Your task to perform on an android device: delete browsing data in the chrome app Image 0: 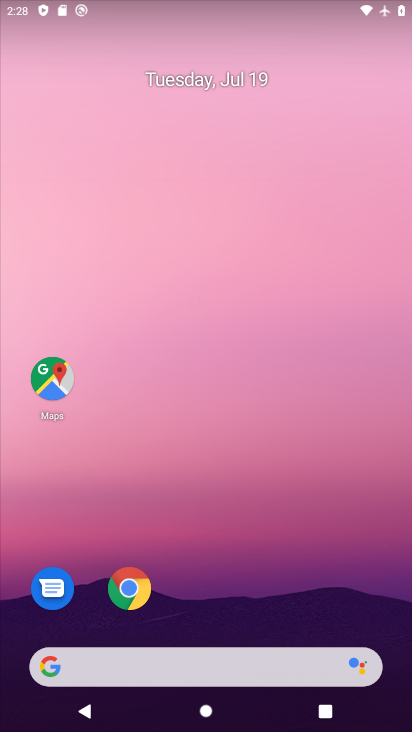
Step 0: press home button
Your task to perform on an android device: delete browsing data in the chrome app Image 1: 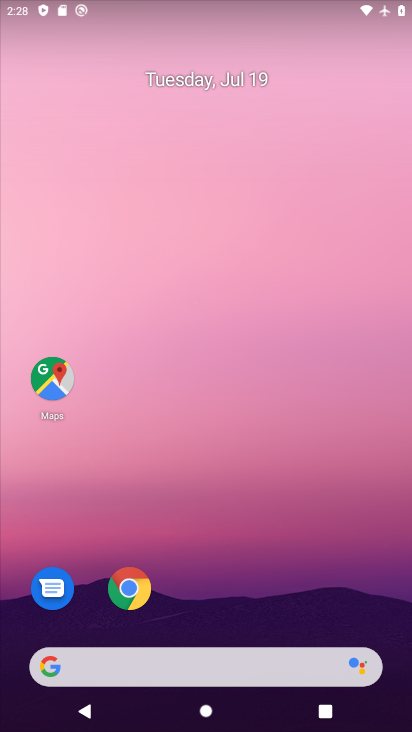
Step 1: drag from (216, 628) to (281, 108)
Your task to perform on an android device: delete browsing data in the chrome app Image 2: 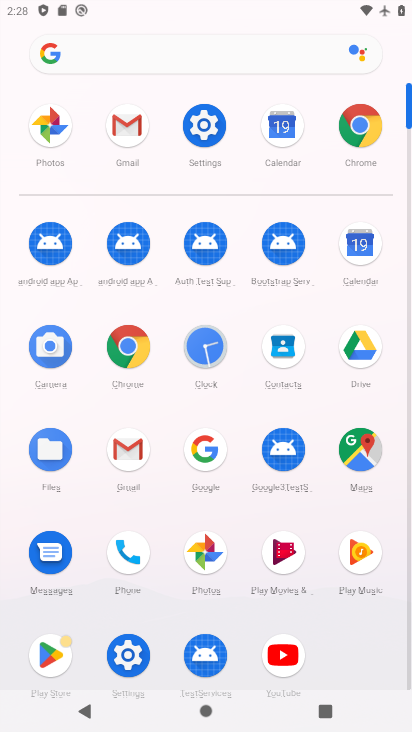
Step 2: click (355, 127)
Your task to perform on an android device: delete browsing data in the chrome app Image 3: 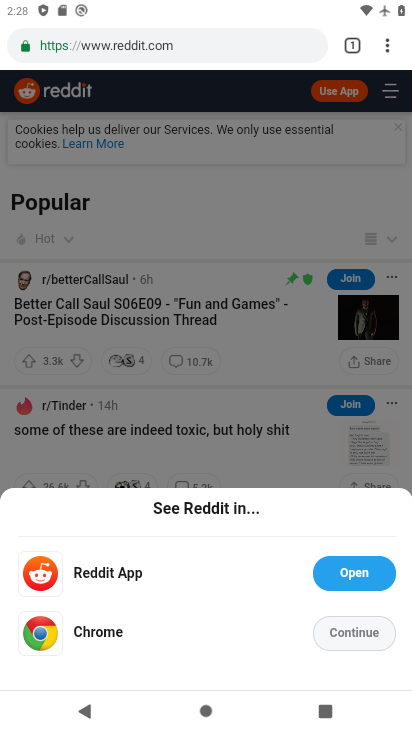
Step 3: drag from (395, 39) to (213, 266)
Your task to perform on an android device: delete browsing data in the chrome app Image 4: 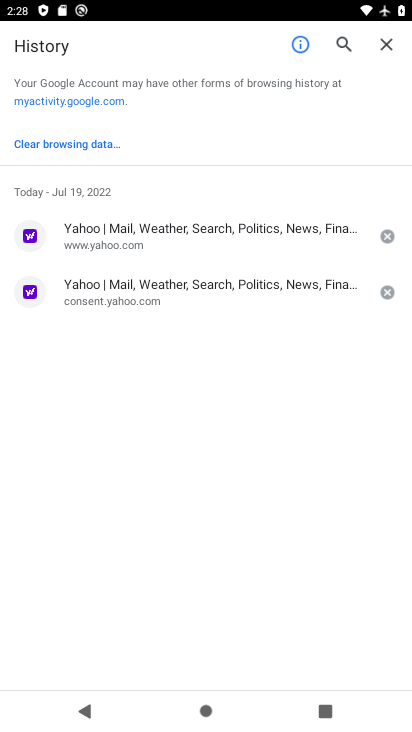
Step 4: click (73, 142)
Your task to perform on an android device: delete browsing data in the chrome app Image 5: 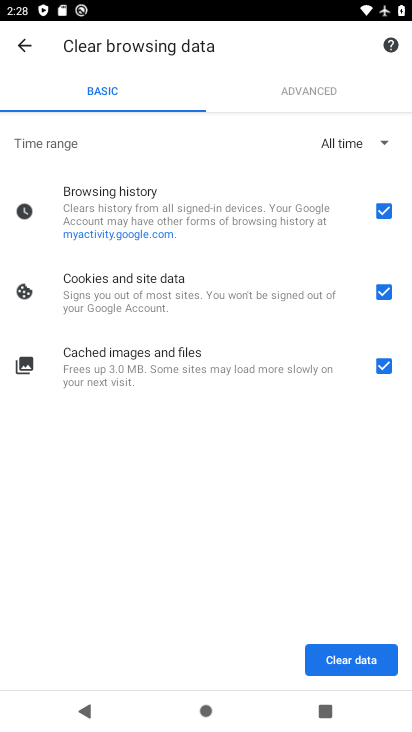
Step 5: click (352, 665)
Your task to perform on an android device: delete browsing data in the chrome app Image 6: 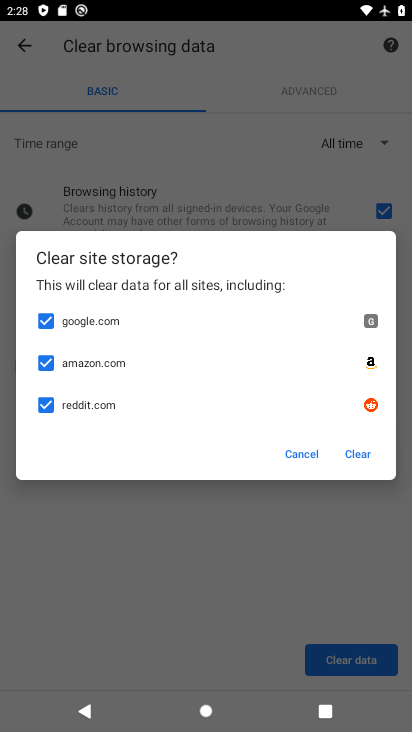
Step 6: click (352, 449)
Your task to perform on an android device: delete browsing data in the chrome app Image 7: 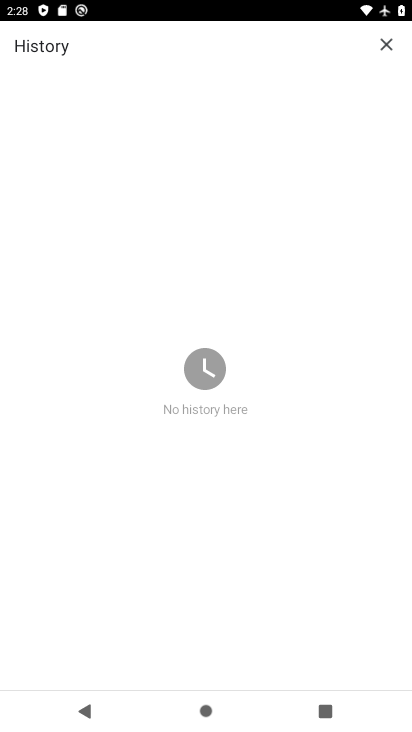
Step 7: task complete